Your task to perform on an android device: open app "Facebook" Image 0: 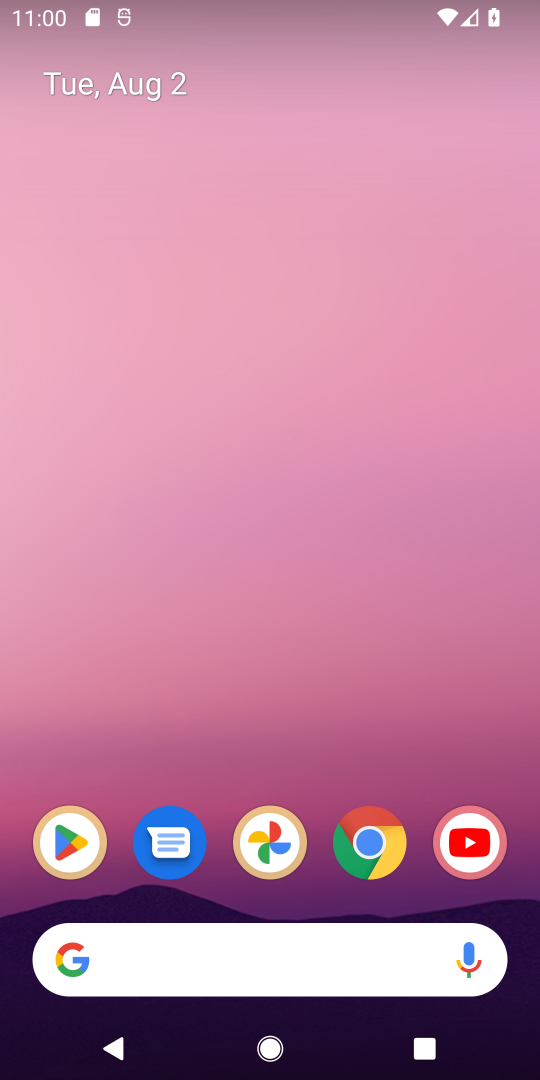
Step 0: press home button
Your task to perform on an android device: open app "Facebook" Image 1: 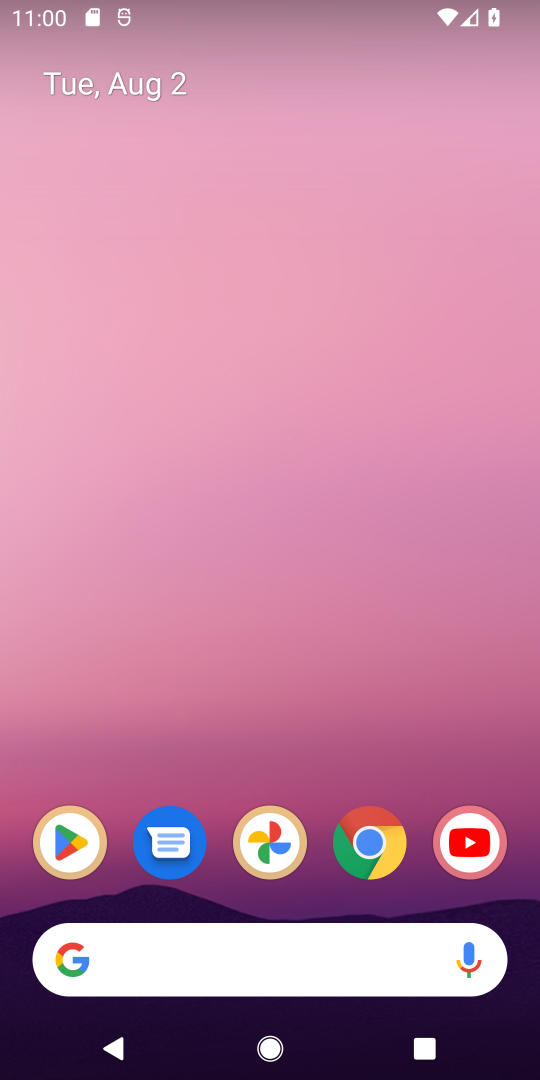
Step 1: drag from (403, 776) to (366, 280)
Your task to perform on an android device: open app "Facebook" Image 2: 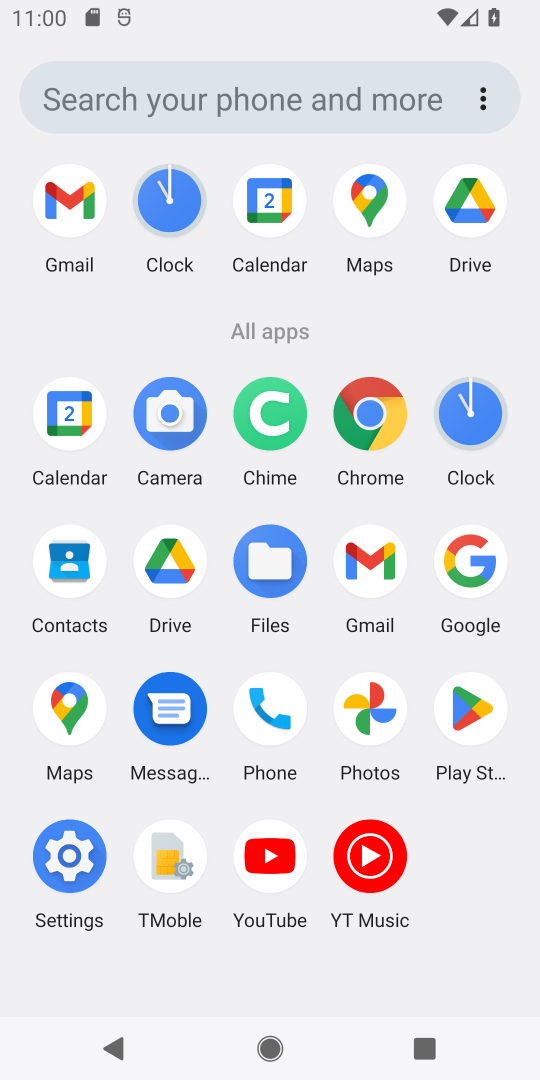
Step 2: click (495, 697)
Your task to perform on an android device: open app "Facebook" Image 3: 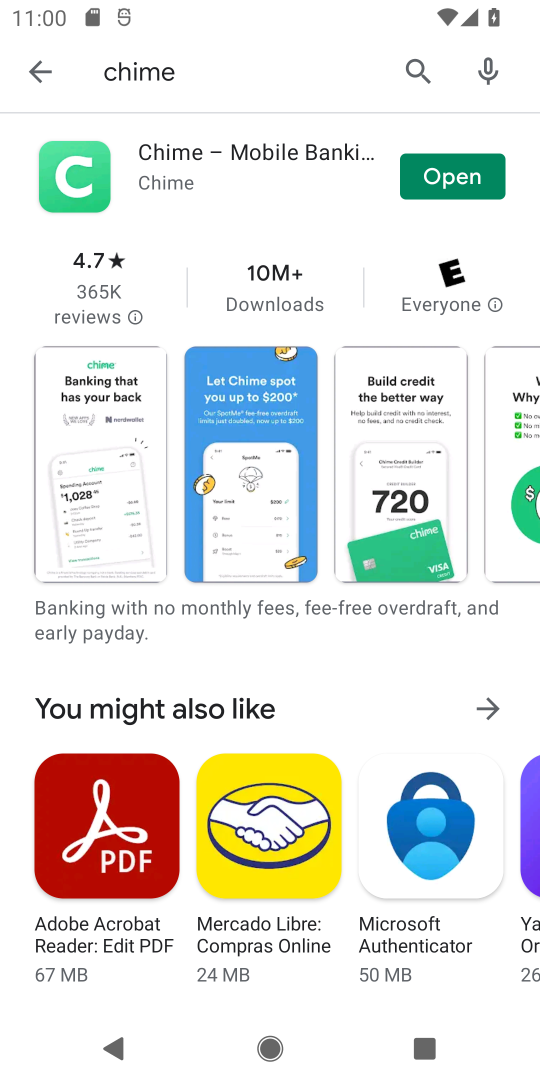
Step 3: click (420, 73)
Your task to perform on an android device: open app "Facebook" Image 4: 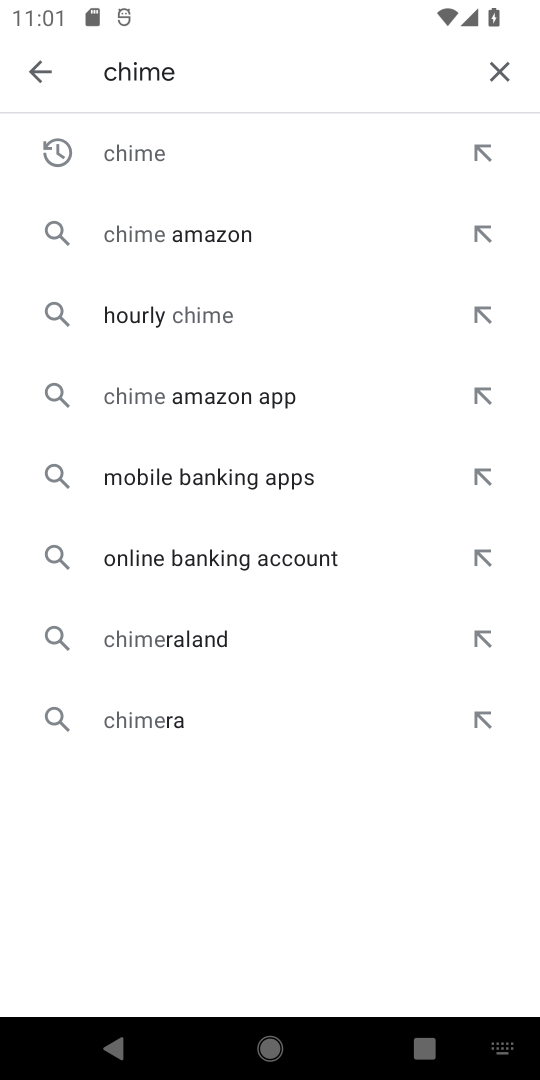
Step 4: click (497, 74)
Your task to perform on an android device: open app "Facebook" Image 5: 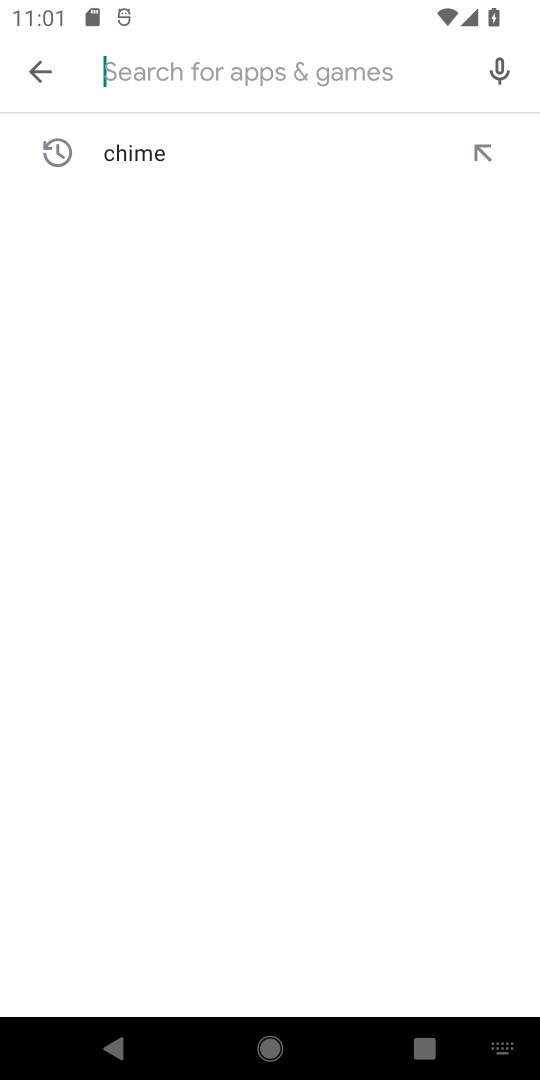
Step 5: type ""
Your task to perform on an android device: open app "Facebook" Image 6: 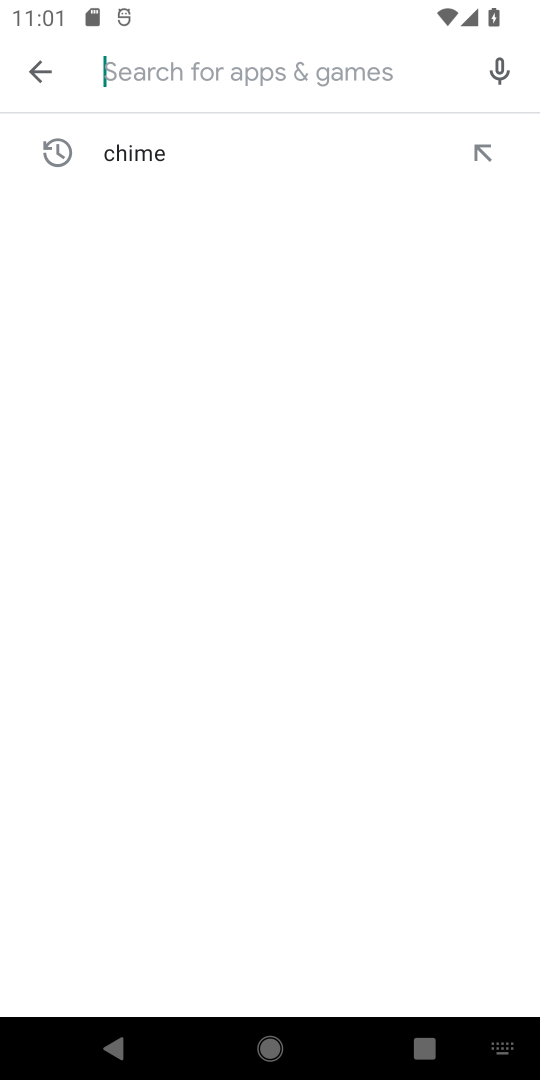
Step 6: type "Facebook"
Your task to perform on an android device: open app "Facebook" Image 7: 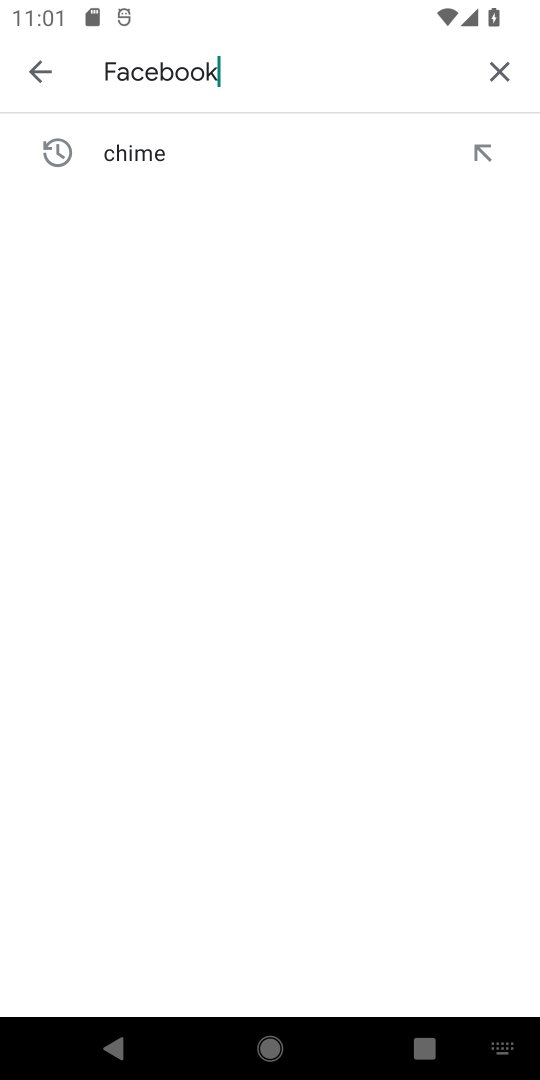
Step 7: type ""
Your task to perform on an android device: open app "Facebook" Image 8: 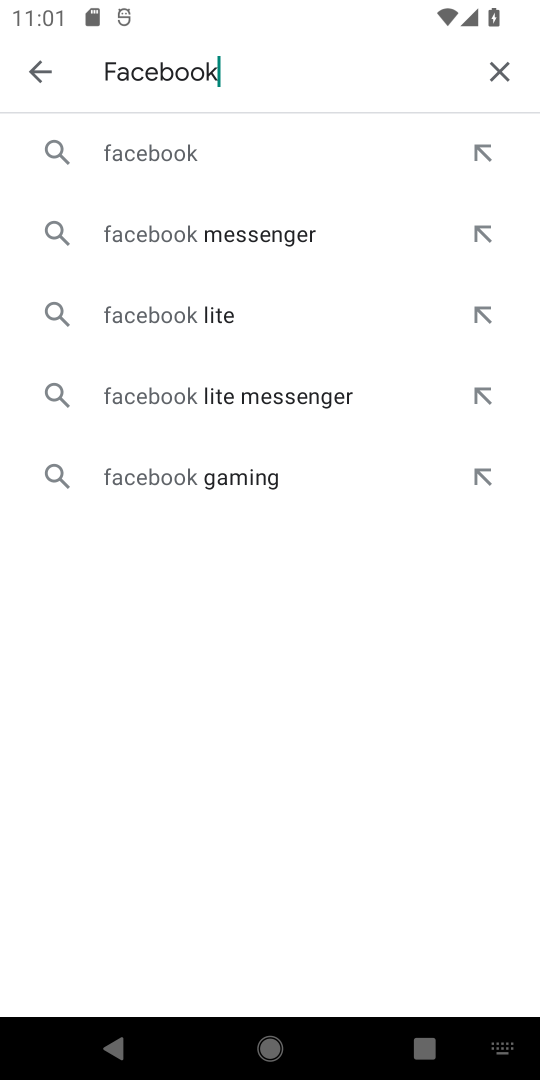
Step 8: click (151, 156)
Your task to perform on an android device: open app "Facebook" Image 9: 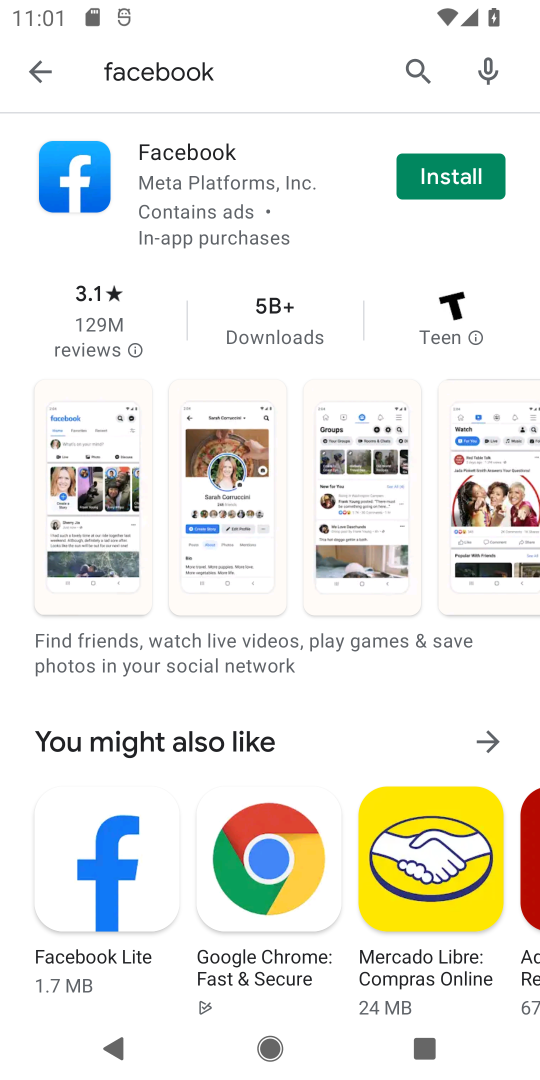
Step 9: task complete